Your task to perform on an android device: Open Wikipedia Image 0: 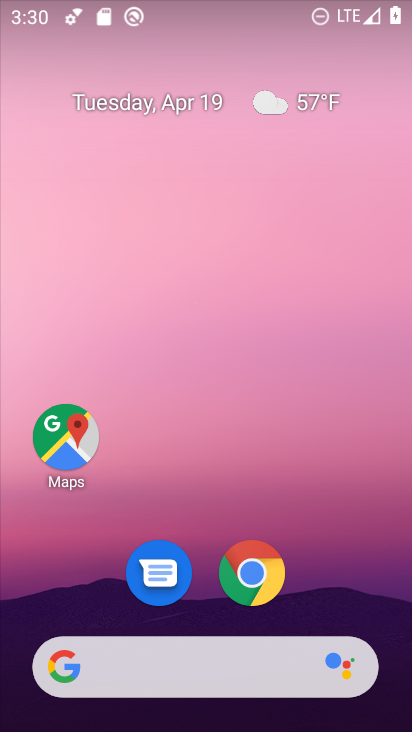
Step 0: click (262, 578)
Your task to perform on an android device: Open Wikipedia Image 1: 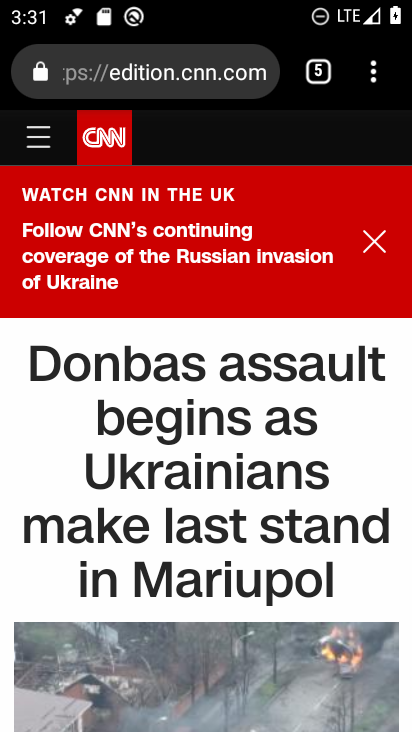
Step 1: click (373, 72)
Your task to perform on an android device: Open Wikipedia Image 2: 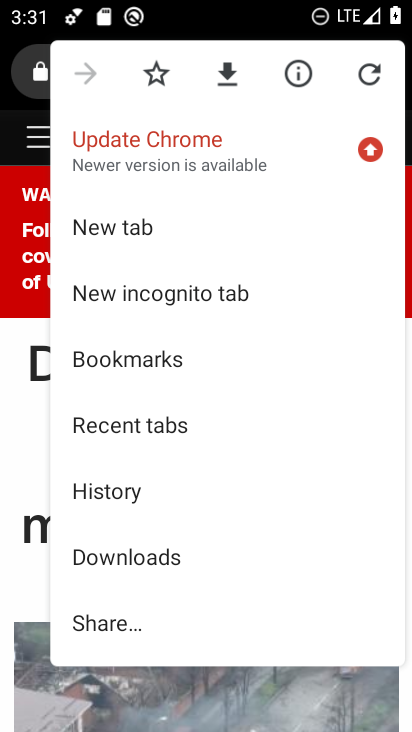
Step 2: click (247, 499)
Your task to perform on an android device: Open Wikipedia Image 3: 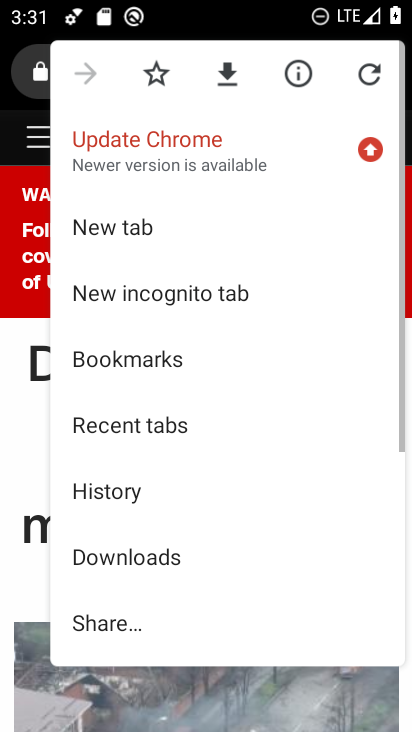
Step 3: click (134, 226)
Your task to perform on an android device: Open Wikipedia Image 4: 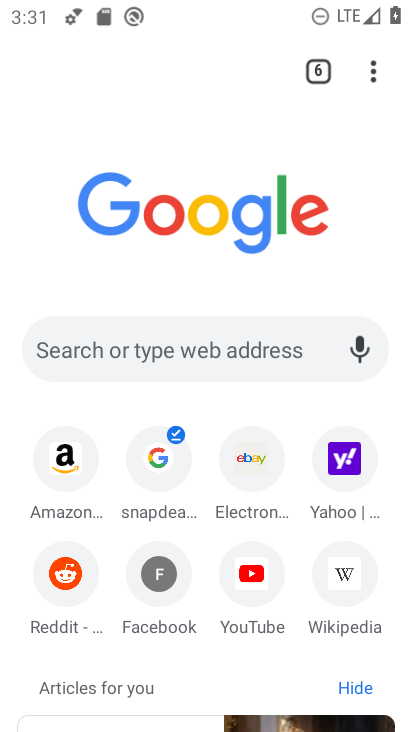
Step 4: click (349, 582)
Your task to perform on an android device: Open Wikipedia Image 5: 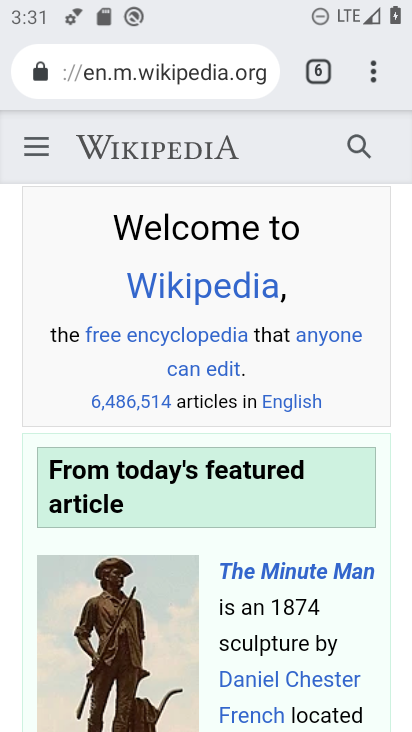
Step 5: task complete